Your task to perform on an android device: Toggle the flashlight Image 0: 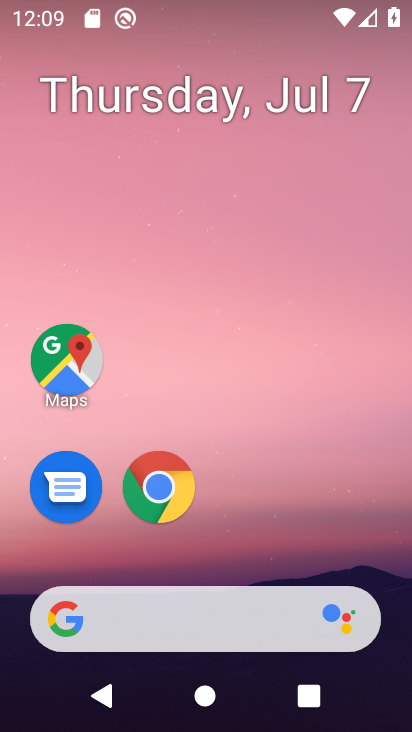
Step 0: drag from (241, 1) to (251, 441)
Your task to perform on an android device: Toggle the flashlight Image 1: 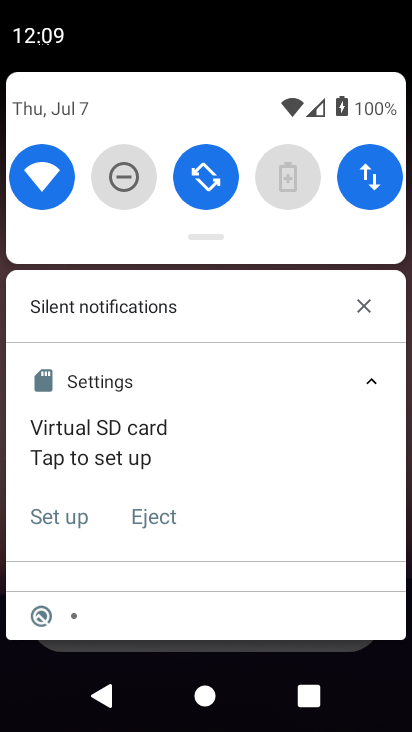
Step 1: drag from (238, 105) to (268, 385)
Your task to perform on an android device: Toggle the flashlight Image 2: 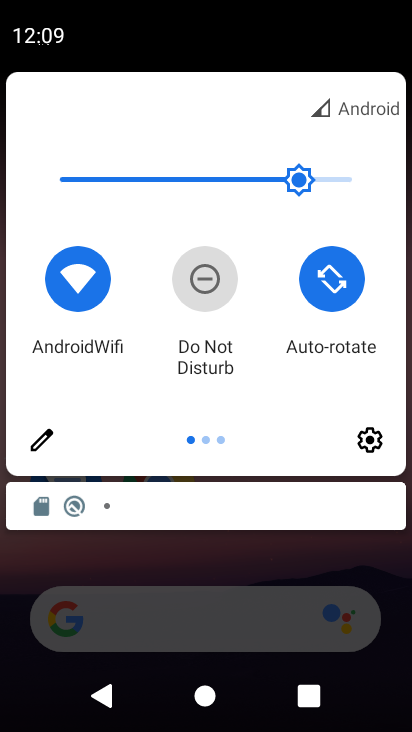
Step 2: click (48, 440)
Your task to perform on an android device: Toggle the flashlight Image 3: 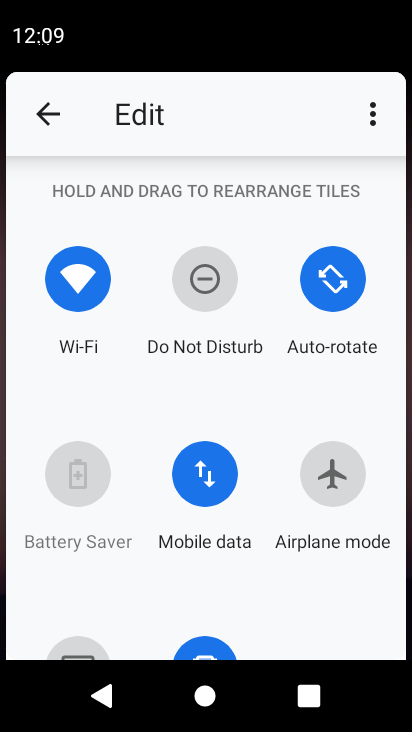
Step 3: task complete